Your task to perform on an android device: open app "Skype" (install if not already installed), go to login, and select forgot password Image 0: 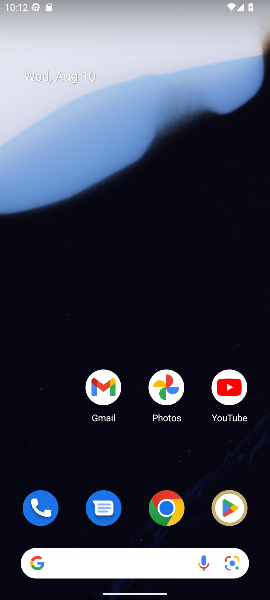
Step 0: drag from (112, 559) to (139, 224)
Your task to perform on an android device: open app "Skype" (install if not already installed), go to login, and select forgot password Image 1: 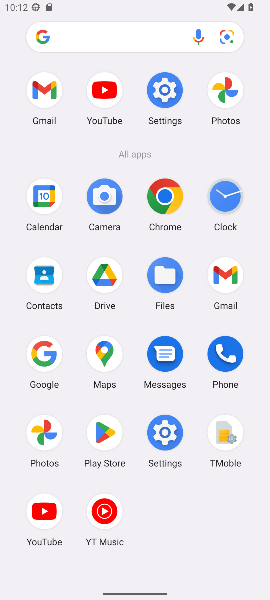
Step 1: click (101, 438)
Your task to perform on an android device: open app "Skype" (install if not already installed), go to login, and select forgot password Image 2: 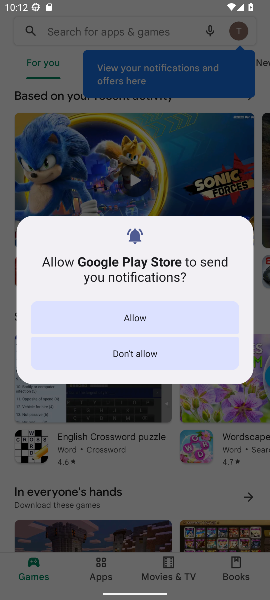
Step 2: click (73, 158)
Your task to perform on an android device: open app "Skype" (install if not already installed), go to login, and select forgot password Image 3: 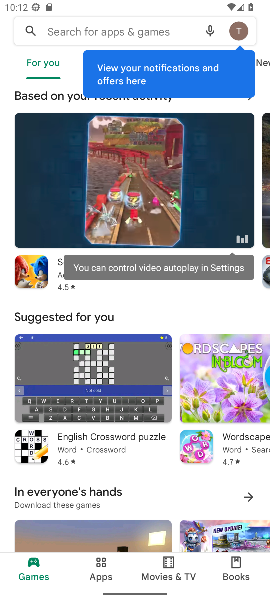
Step 3: click (71, 32)
Your task to perform on an android device: open app "Skype" (install if not already installed), go to login, and select forgot password Image 4: 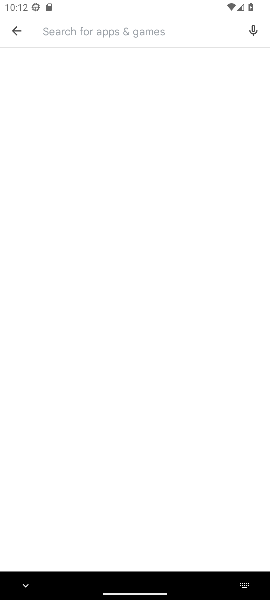
Step 4: type "Skype"
Your task to perform on an android device: open app "Skype" (install if not already installed), go to login, and select forgot password Image 5: 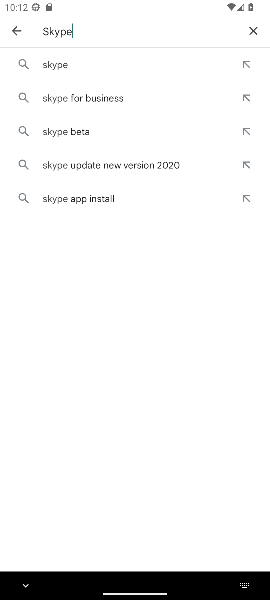
Step 5: click (58, 63)
Your task to perform on an android device: open app "Skype" (install if not already installed), go to login, and select forgot password Image 6: 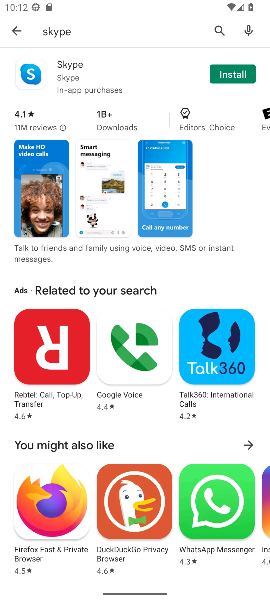
Step 6: click (218, 76)
Your task to perform on an android device: open app "Skype" (install if not already installed), go to login, and select forgot password Image 7: 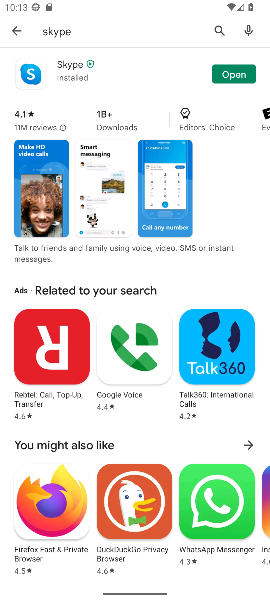
Step 7: click (237, 72)
Your task to perform on an android device: open app "Skype" (install if not already installed), go to login, and select forgot password Image 8: 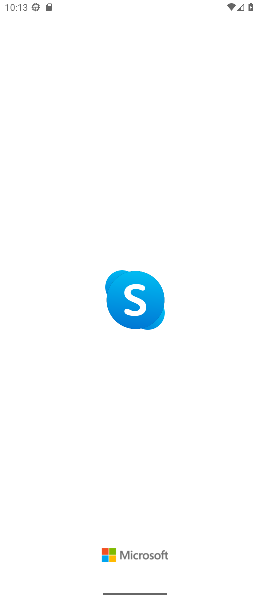
Step 8: task complete